Your task to perform on an android device: Open Youtube and go to the subscriptions tab Image 0: 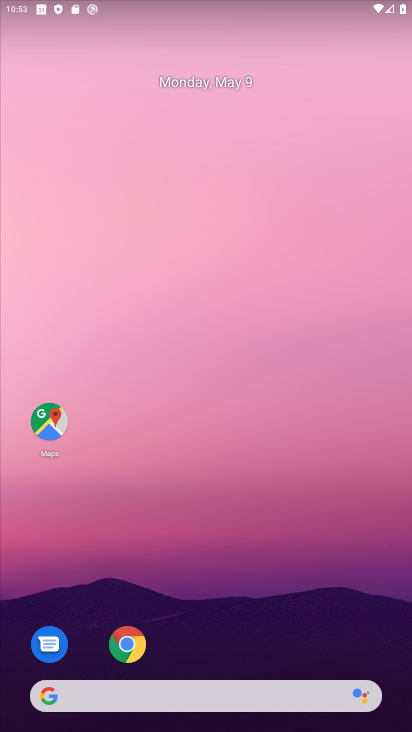
Step 0: drag from (238, 615) to (255, 35)
Your task to perform on an android device: Open Youtube and go to the subscriptions tab Image 1: 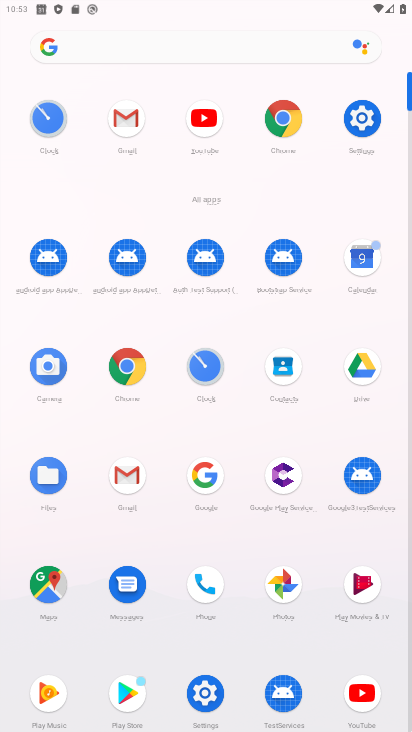
Step 1: click (358, 682)
Your task to perform on an android device: Open Youtube and go to the subscriptions tab Image 2: 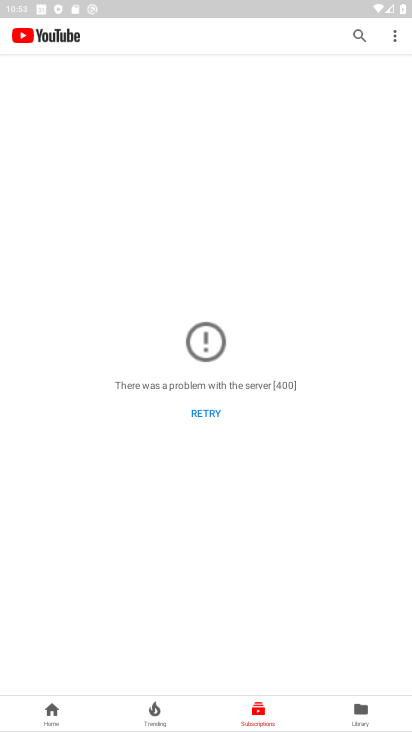
Step 2: click (199, 407)
Your task to perform on an android device: Open Youtube and go to the subscriptions tab Image 3: 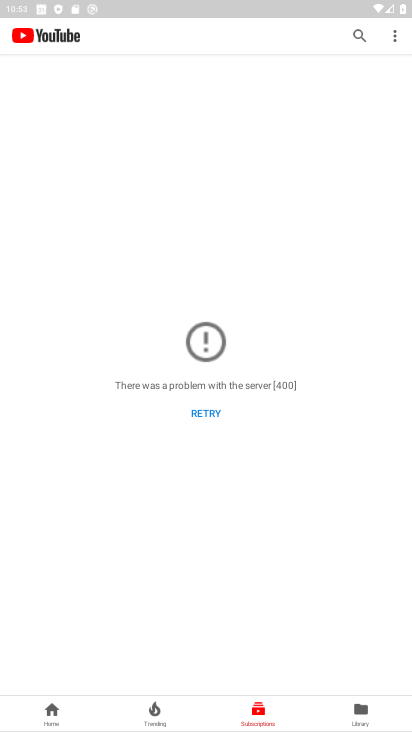
Step 3: task complete